Your task to perform on an android device: Open sound settings Image 0: 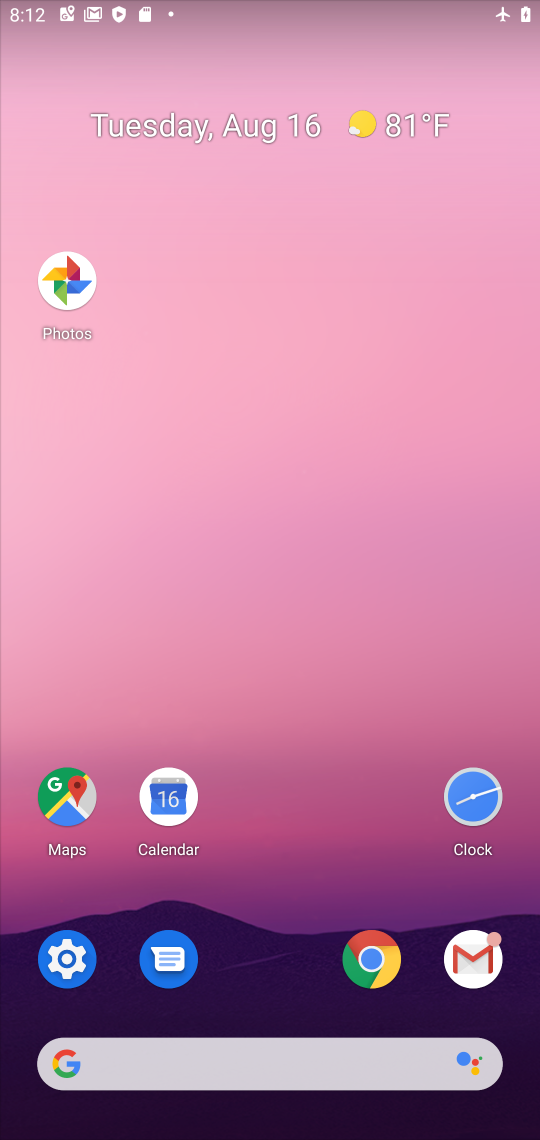
Step 0: click (65, 967)
Your task to perform on an android device: Open sound settings Image 1: 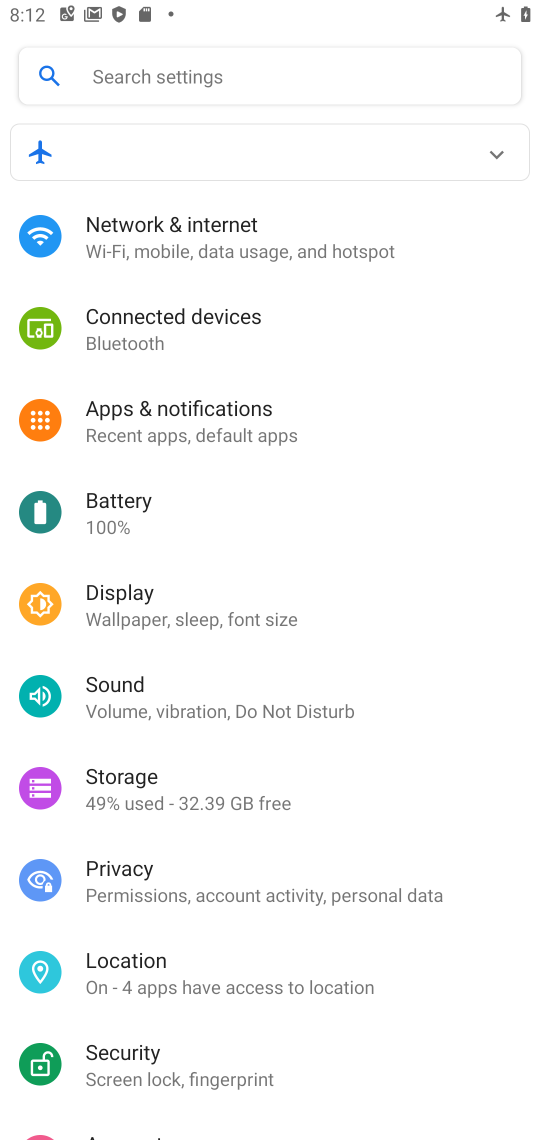
Step 1: click (117, 680)
Your task to perform on an android device: Open sound settings Image 2: 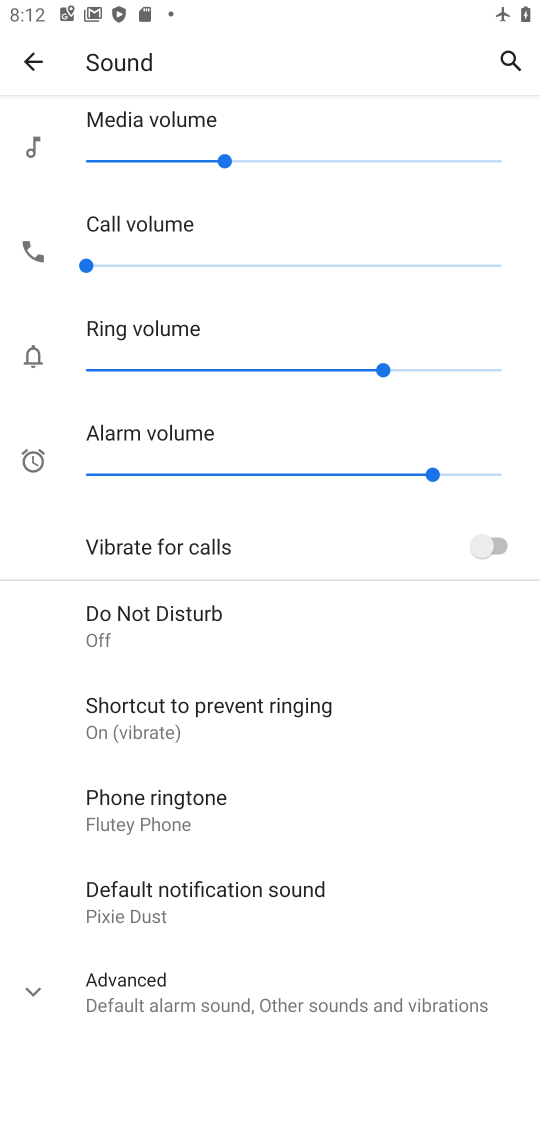
Step 2: task complete